Your task to perform on an android device: open sync settings in chrome Image 0: 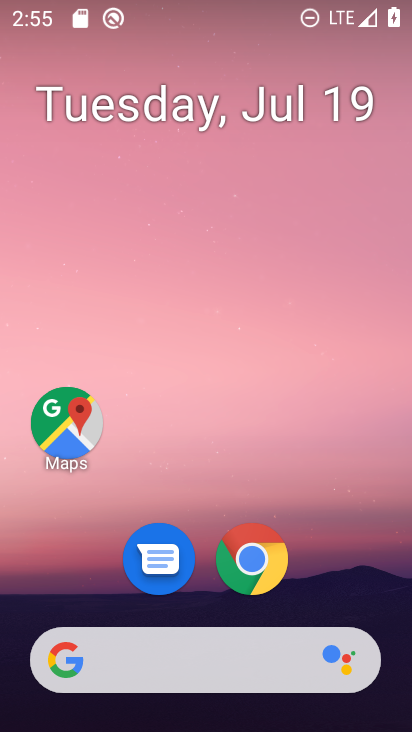
Step 0: drag from (253, 676) to (97, 96)
Your task to perform on an android device: open sync settings in chrome Image 1: 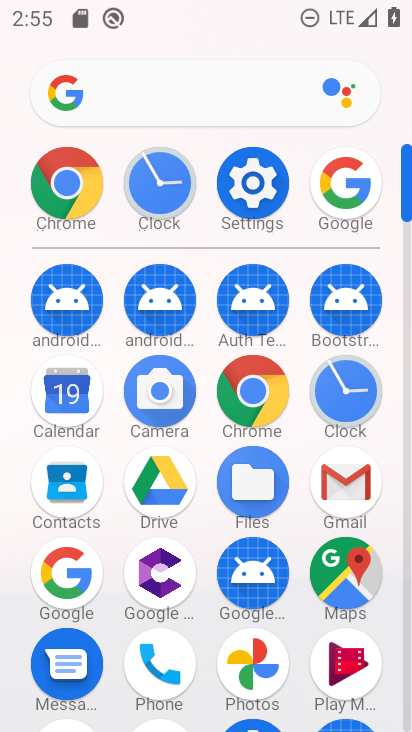
Step 1: click (260, 379)
Your task to perform on an android device: open sync settings in chrome Image 2: 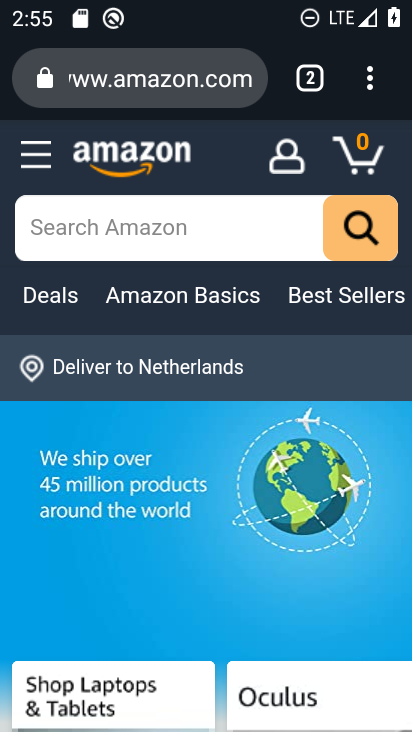
Step 2: click (383, 66)
Your task to perform on an android device: open sync settings in chrome Image 3: 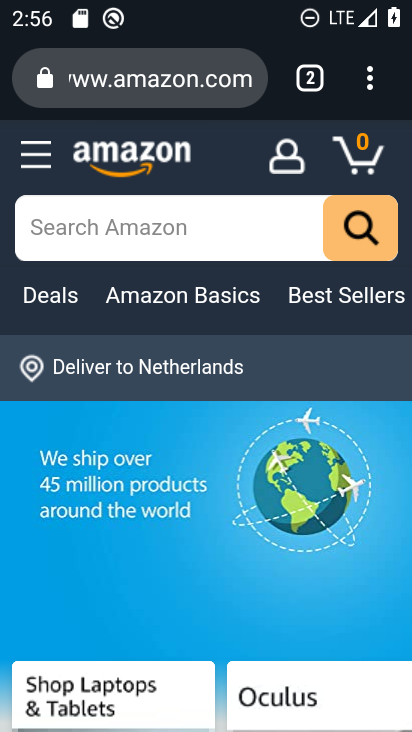
Step 3: click (372, 99)
Your task to perform on an android device: open sync settings in chrome Image 4: 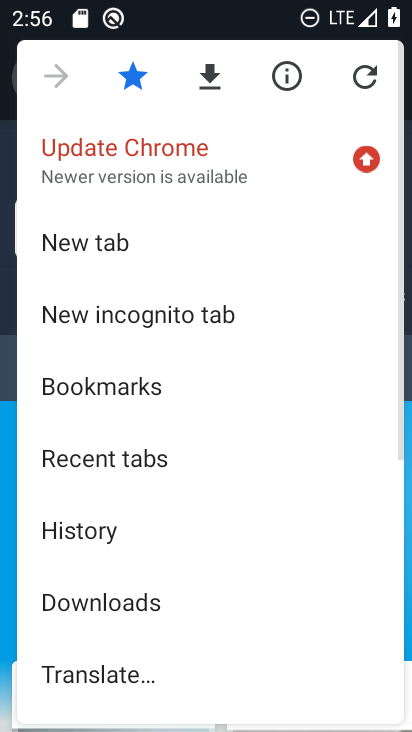
Step 4: drag from (172, 577) to (186, 161)
Your task to perform on an android device: open sync settings in chrome Image 5: 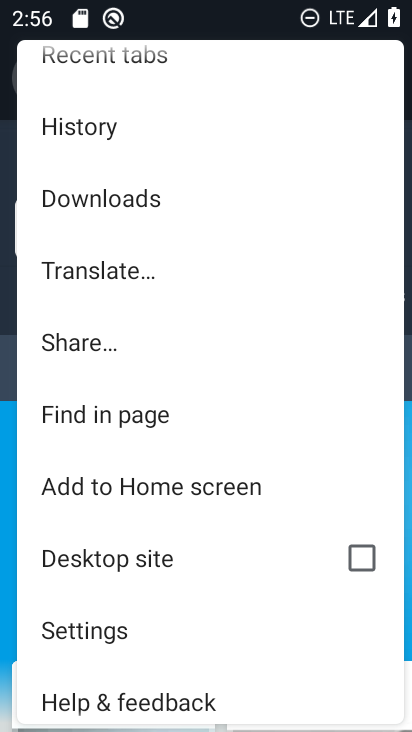
Step 5: click (123, 646)
Your task to perform on an android device: open sync settings in chrome Image 6: 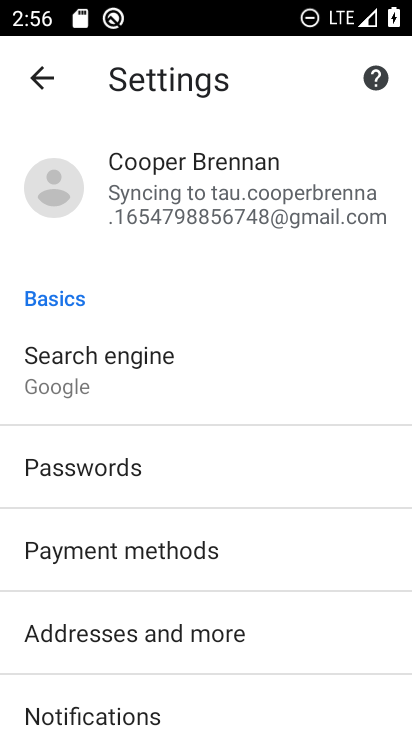
Step 6: click (245, 215)
Your task to perform on an android device: open sync settings in chrome Image 7: 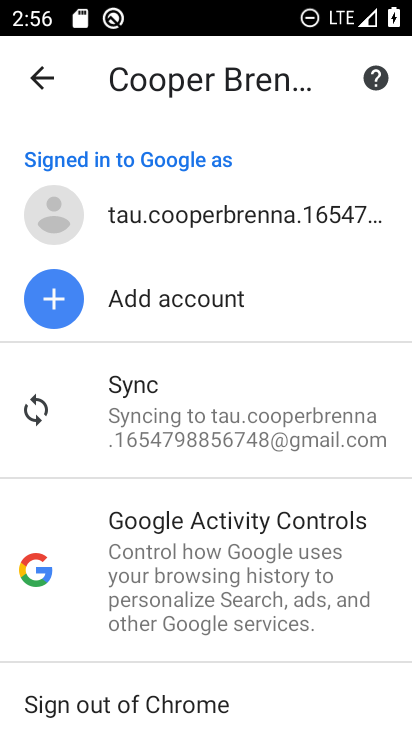
Step 7: click (179, 421)
Your task to perform on an android device: open sync settings in chrome Image 8: 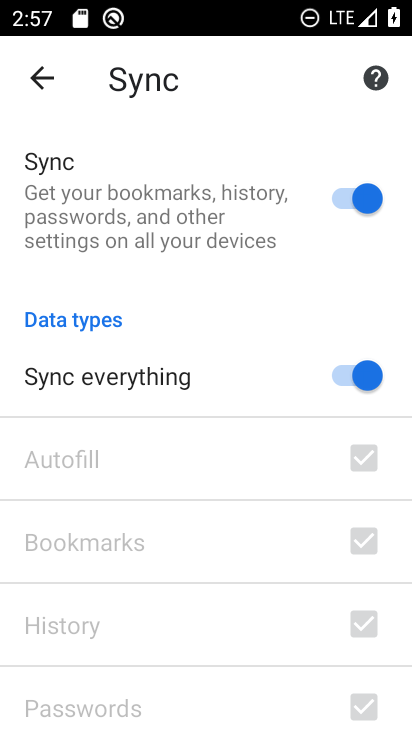
Step 8: task complete